Your task to perform on an android device: Open Chrome and go to the settings page Image 0: 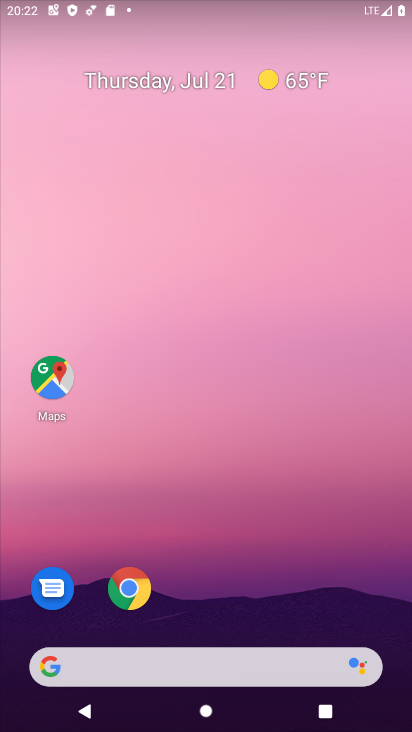
Step 0: click (145, 588)
Your task to perform on an android device: Open Chrome and go to the settings page Image 1: 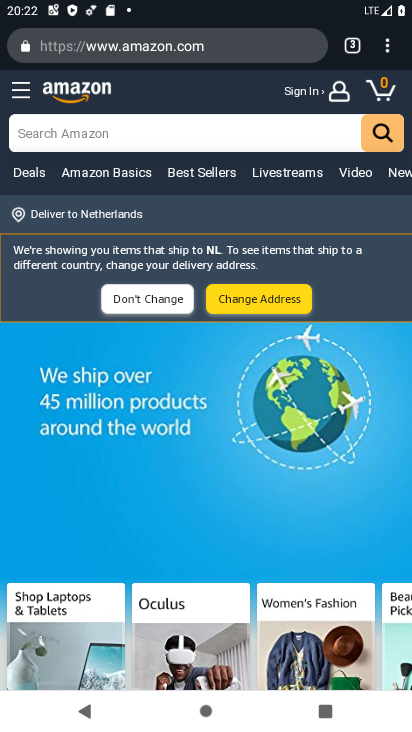
Step 1: task complete